Your task to perform on an android device: Open Google Image 0: 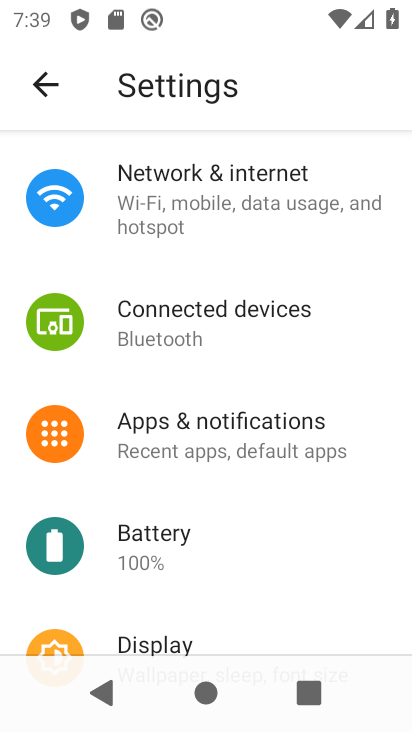
Step 0: press home button
Your task to perform on an android device: Open Google Image 1: 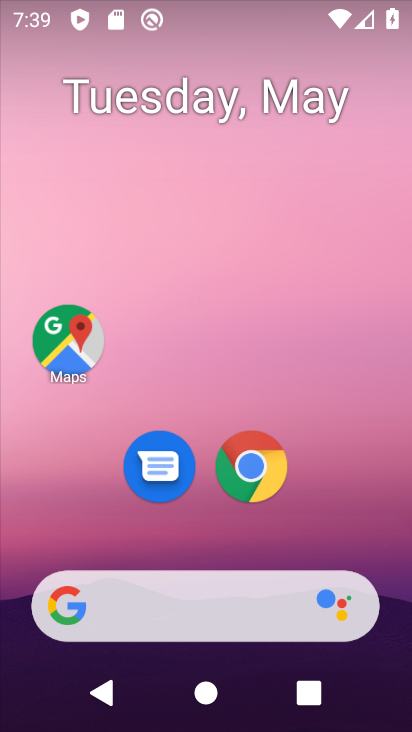
Step 1: drag from (170, 559) to (183, 104)
Your task to perform on an android device: Open Google Image 2: 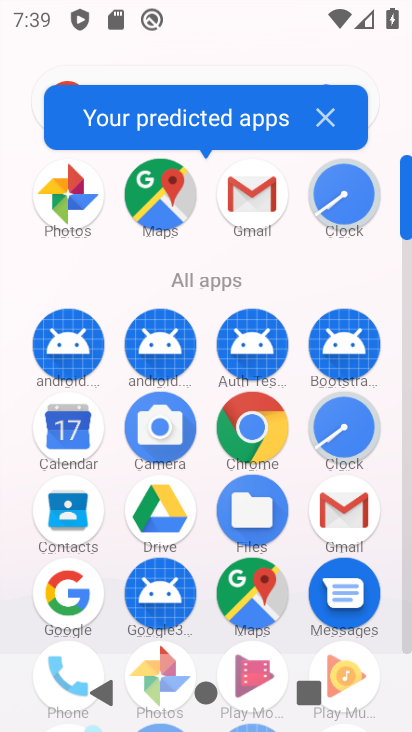
Step 2: click (53, 592)
Your task to perform on an android device: Open Google Image 3: 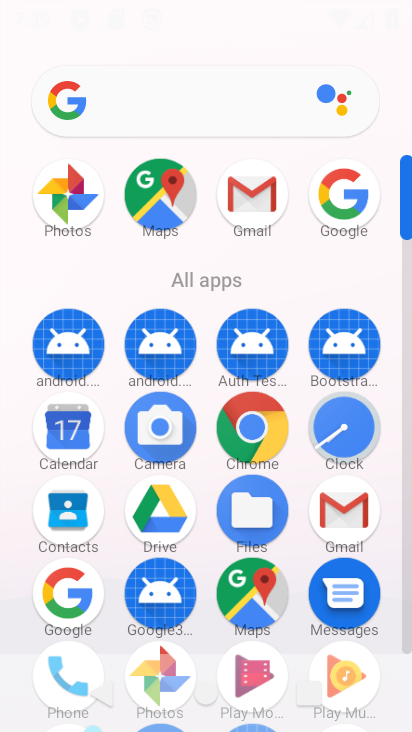
Step 3: task complete